Your task to perform on an android device: Open Google Chrome and open the bookmarks view Image 0: 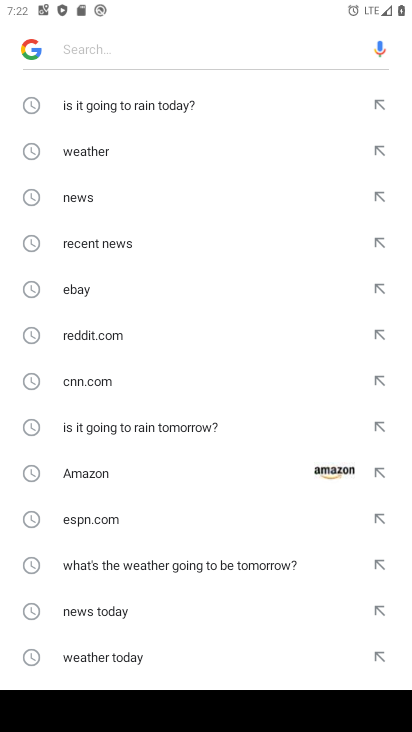
Step 0: press home button
Your task to perform on an android device: Open Google Chrome and open the bookmarks view Image 1: 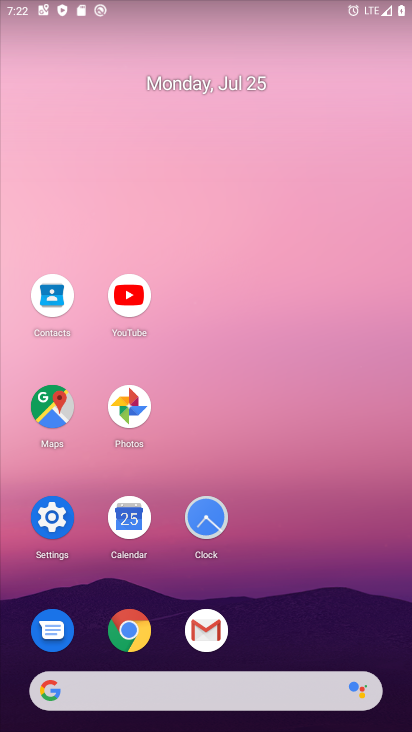
Step 1: click (127, 638)
Your task to perform on an android device: Open Google Chrome and open the bookmarks view Image 2: 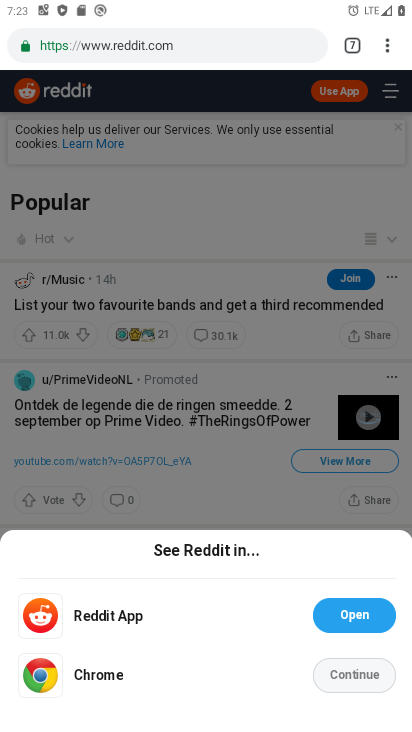
Step 2: click (388, 37)
Your task to perform on an android device: Open Google Chrome and open the bookmarks view Image 3: 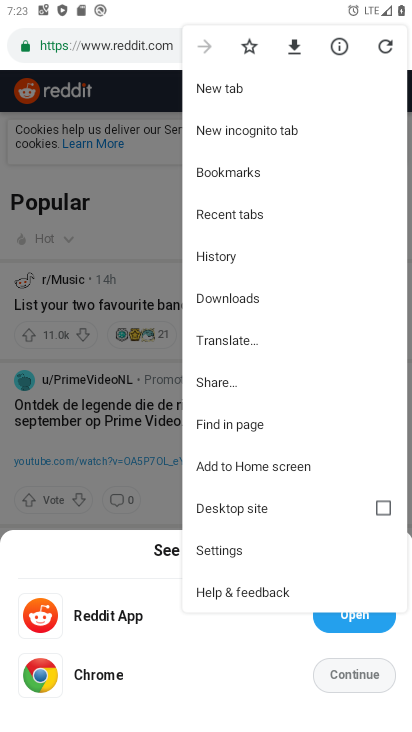
Step 3: click (240, 170)
Your task to perform on an android device: Open Google Chrome and open the bookmarks view Image 4: 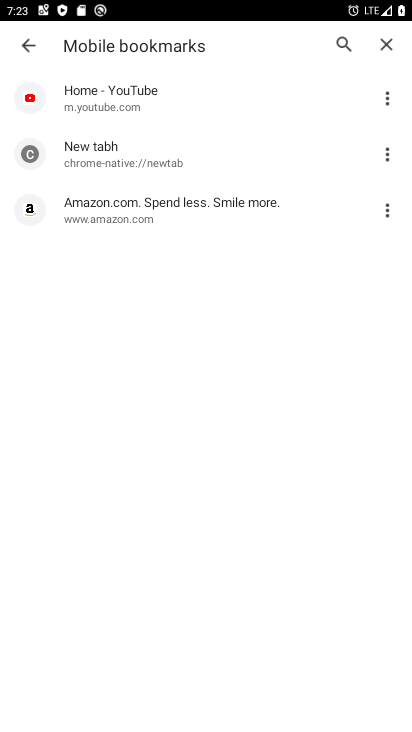
Step 4: click (385, 101)
Your task to perform on an android device: Open Google Chrome and open the bookmarks view Image 5: 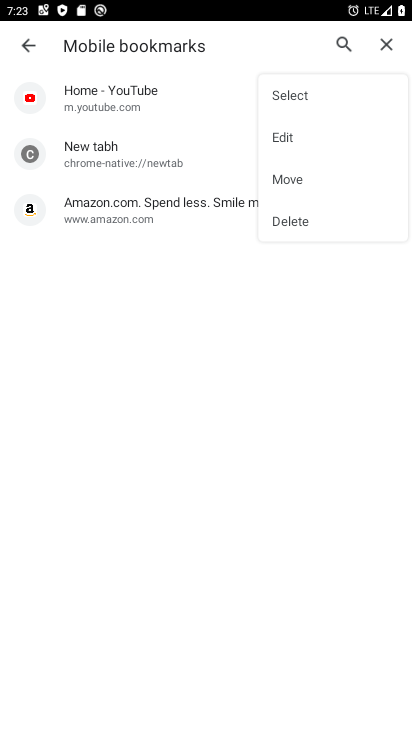
Step 5: click (295, 129)
Your task to perform on an android device: Open Google Chrome and open the bookmarks view Image 6: 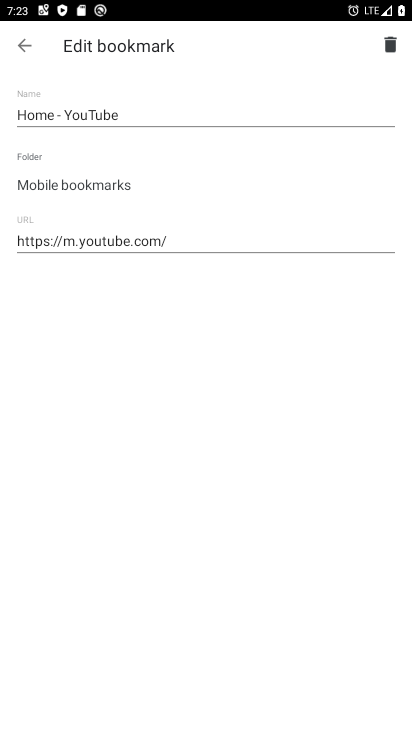
Step 6: task complete